Your task to perform on an android device: change the clock display to analog Image 0: 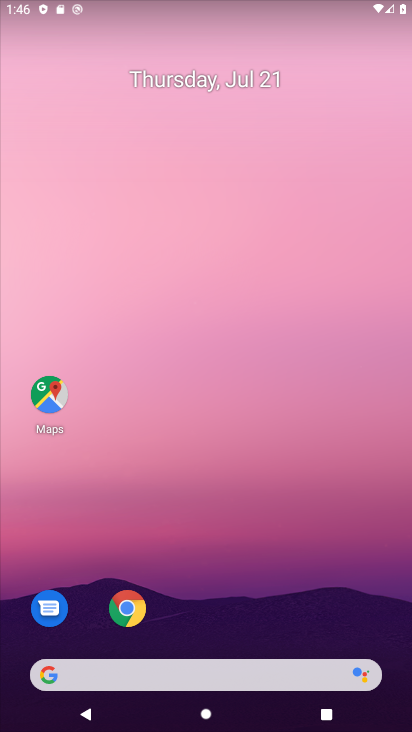
Step 0: drag from (242, 571) to (165, 120)
Your task to perform on an android device: change the clock display to analog Image 1: 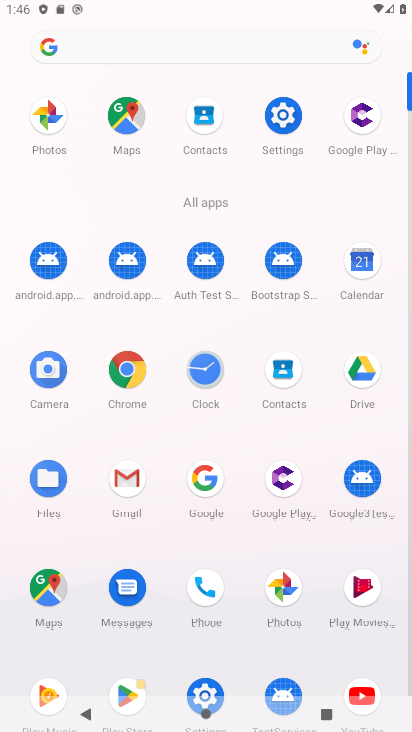
Step 1: click (207, 373)
Your task to perform on an android device: change the clock display to analog Image 2: 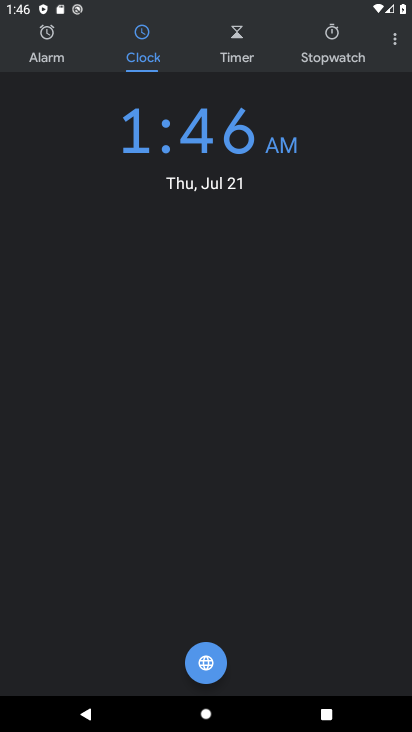
Step 2: click (399, 42)
Your task to perform on an android device: change the clock display to analog Image 3: 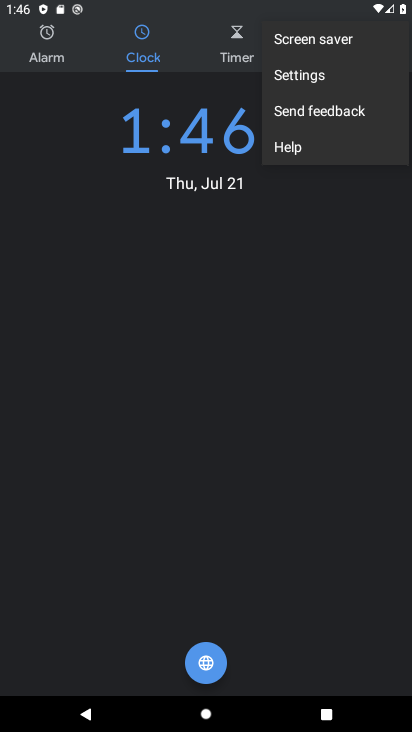
Step 3: click (307, 78)
Your task to perform on an android device: change the clock display to analog Image 4: 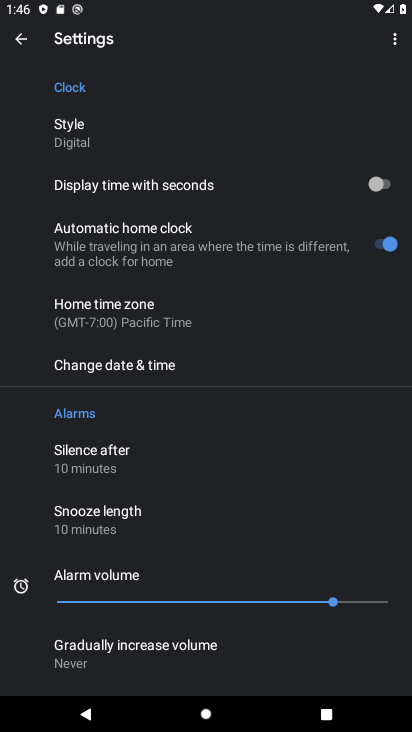
Step 4: click (77, 131)
Your task to perform on an android device: change the clock display to analog Image 5: 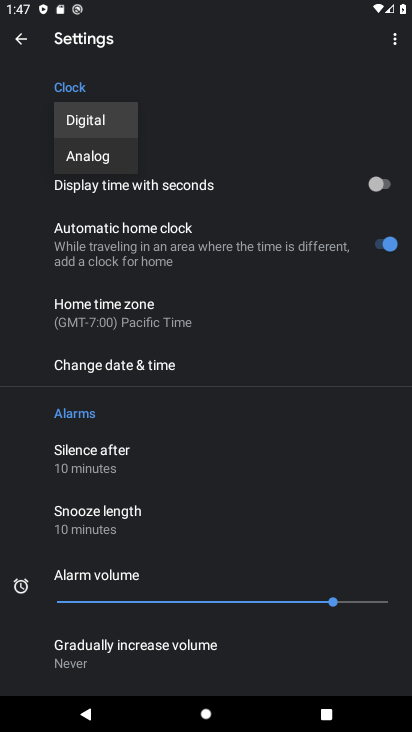
Step 5: click (93, 154)
Your task to perform on an android device: change the clock display to analog Image 6: 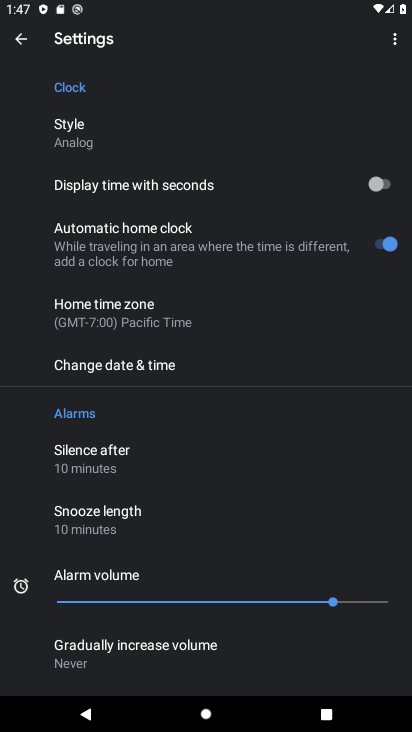
Step 6: task complete